Your task to perform on an android device: Open Chrome and go to the settings page Image 0: 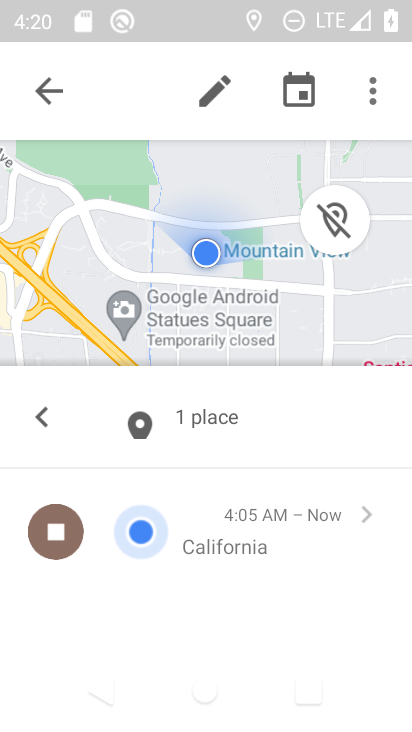
Step 0: press home button
Your task to perform on an android device: Open Chrome and go to the settings page Image 1: 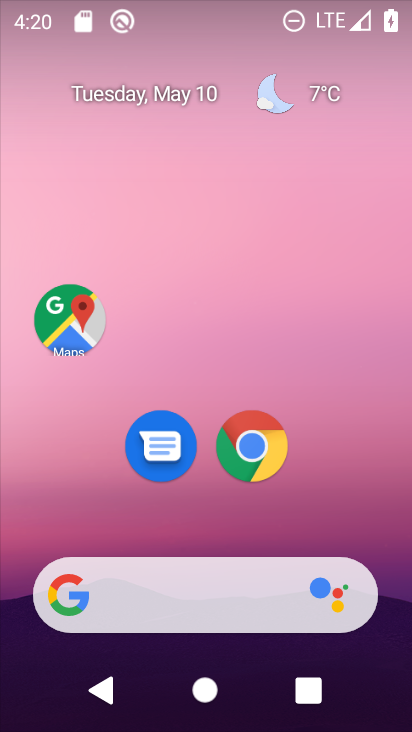
Step 1: click (255, 448)
Your task to perform on an android device: Open Chrome and go to the settings page Image 2: 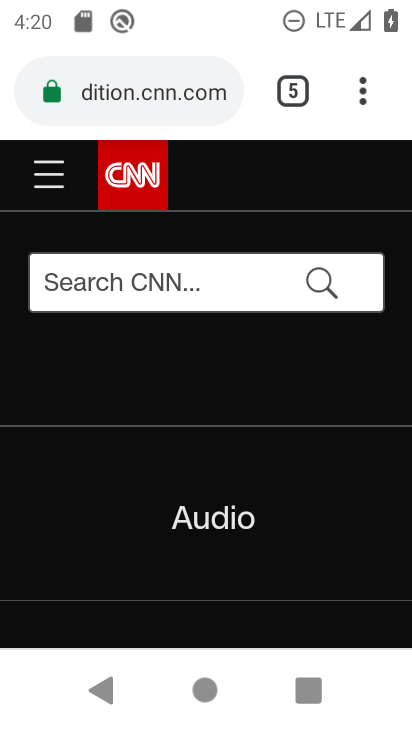
Step 2: click (362, 69)
Your task to perform on an android device: Open Chrome and go to the settings page Image 3: 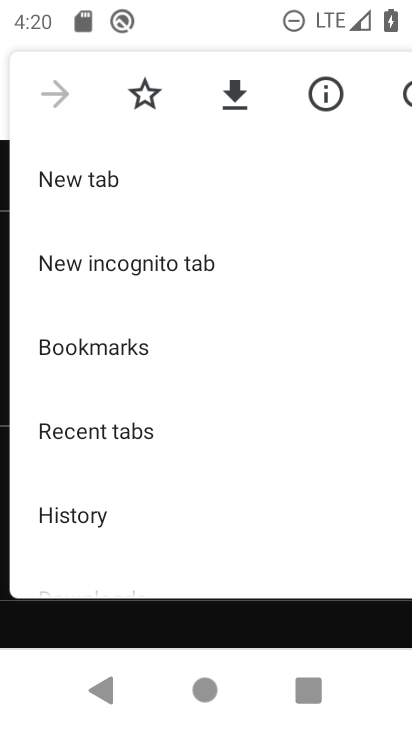
Step 3: drag from (214, 517) to (228, 116)
Your task to perform on an android device: Open Chrome and go to the settings page Image 4: 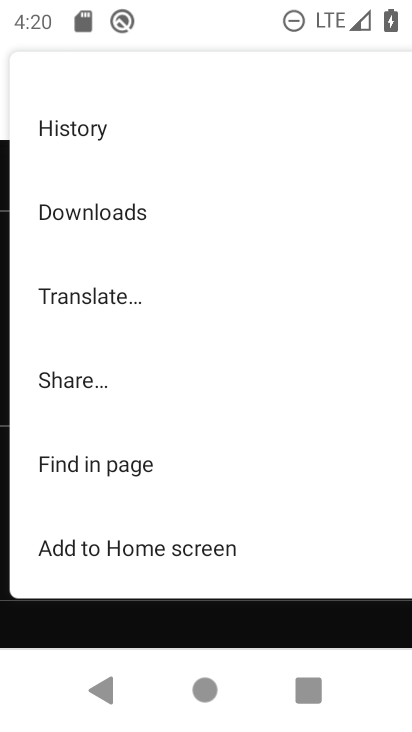
Step 4: drag from (179, 495) to (187, 163)
Your task to perform on an android device: Open Chrome and go to the settings page Image 5: 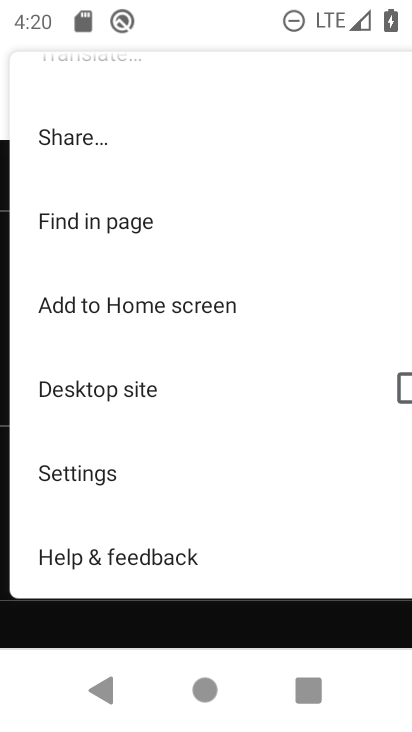
Step 5: click (133, 467)
Your task to perform on an android device: Open Chrome and go to the settings page Image 6: 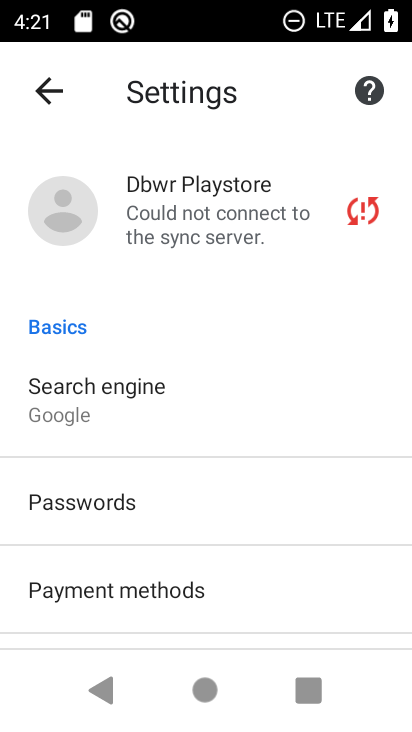
Step 6: task complete